Your task to perform on an android device: change the upload size in google photos Image 0: 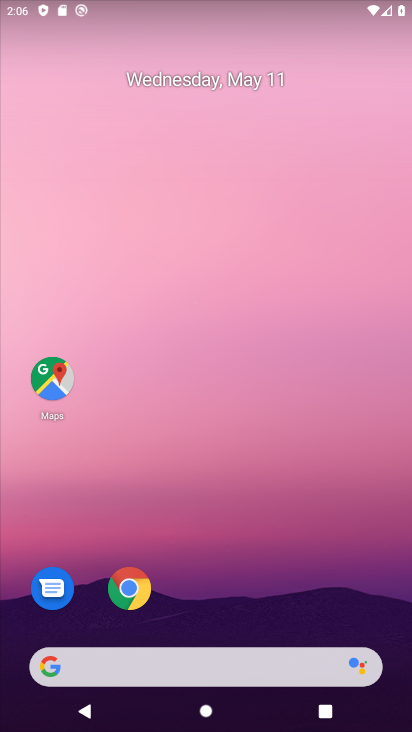
Step 0: drag from (281, 256) to (286, 62)
Your task to perform on an android device: change the upload size in google photos Image 1: 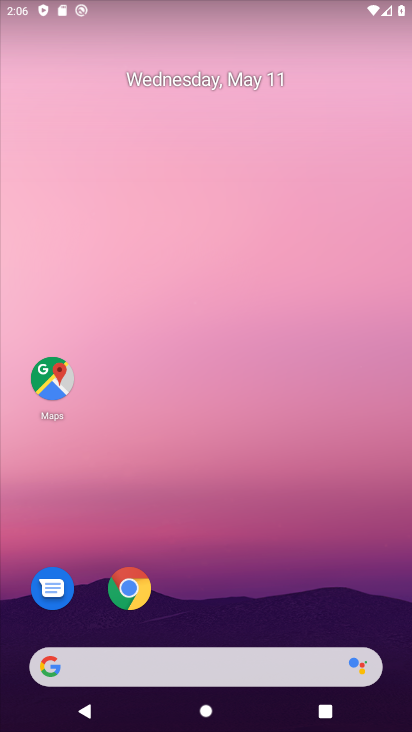
Step 1: drag from (228, 576) to (213, 8)
Your task to perform on an android device: change the upload size in google photos Image 2: 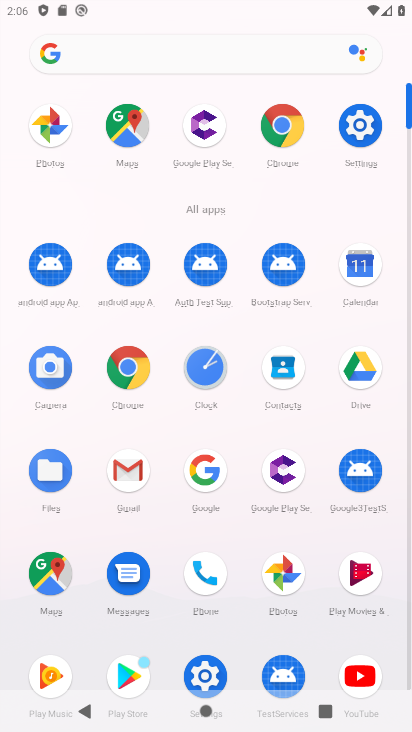
Step 2: click (291, 580)
Your task to perform on an android device: change the upload size in google photos Image 3: 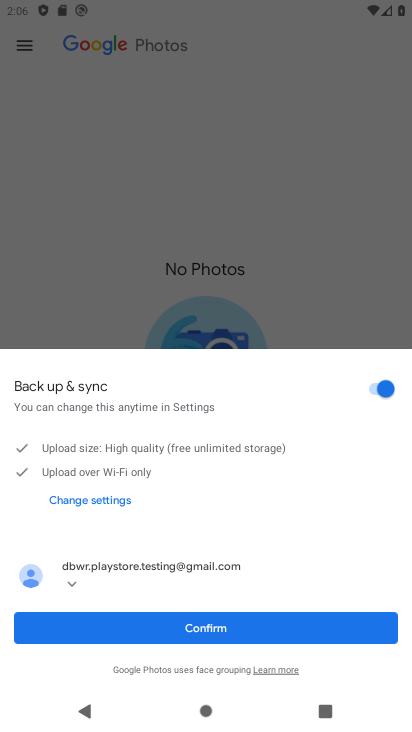
Step 3: click (119, 613)
Your task to perform on an android device: change the upload size in google photos Image 4: 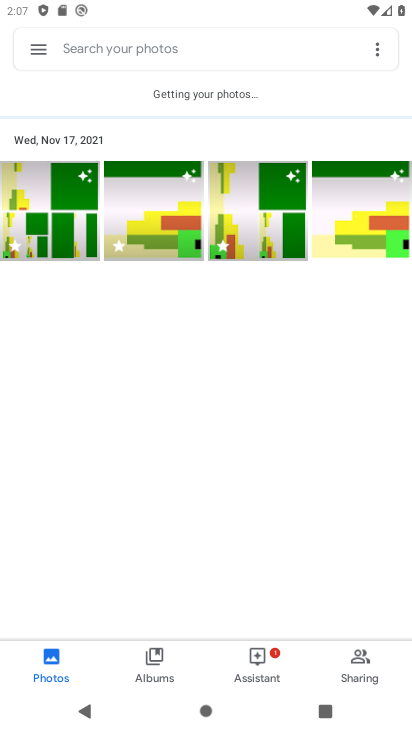
Step 4: click (382, 51)
Your task to perform on an android device: change the upload size in google photos Image 5: 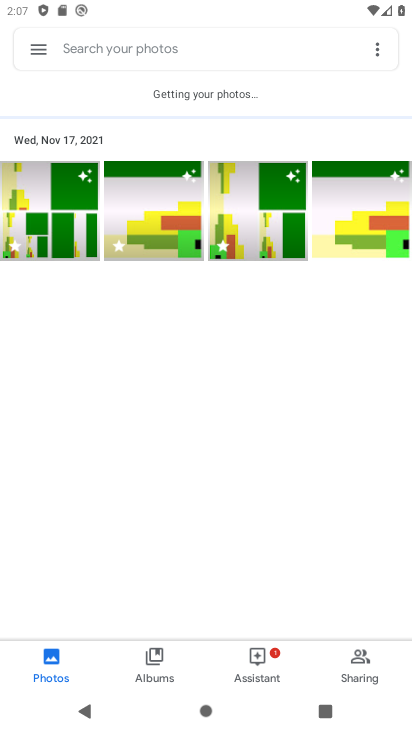
Step 5: click (40, 51)
Your task to perform on an android device: change the upload size in google photos Image 6: 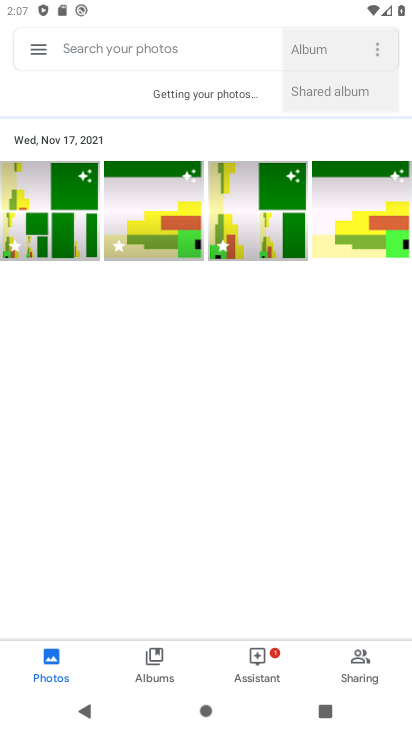
Step 6: click (46, 30)
Your task to perform on an android device: change the upload size in google photos Image 7: 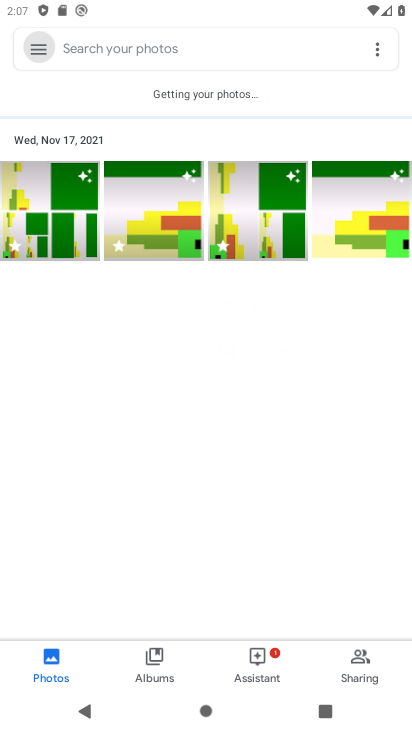
Step 7: click (51, 37)
Your task to perform on an android device: change the upload size in google photos Image 8: 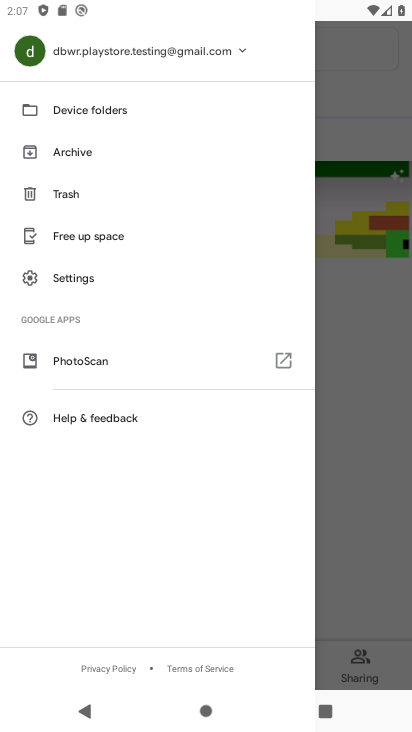
Step 8: click (73, 280)
Your task to perform on an android device: change the upload size in google photos Image 9: 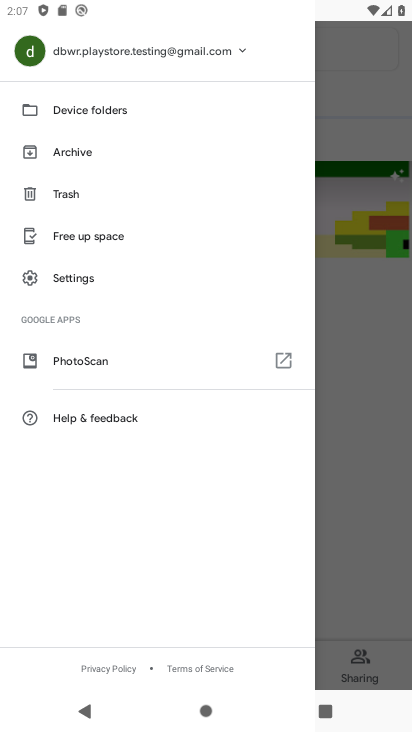
Step 9: click (85, 278)
Your task to perform on an android device: change the upload size in google photos Image 10: 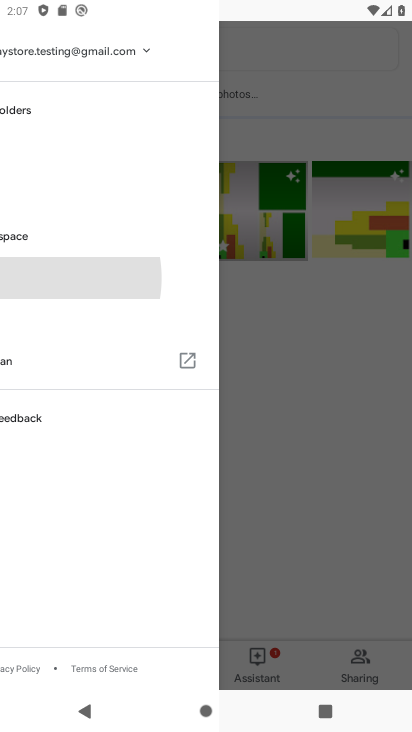
Step 10: click (85, 278)
Your task to perform on an android device: change the upload size in google photos Image 11: 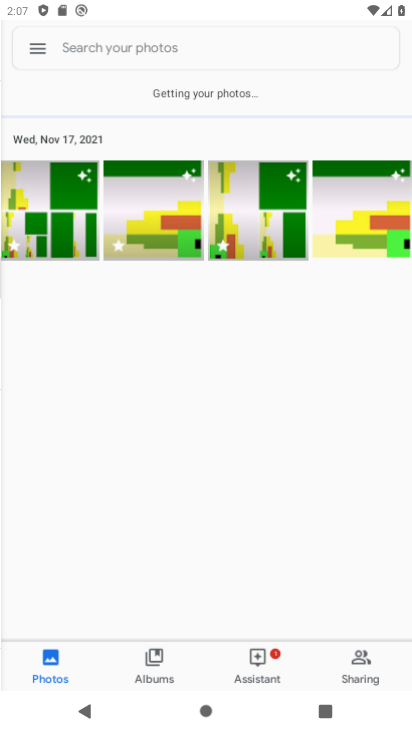
Step 11: click (85, 278)
Your task to perform on an android device: change the upload size in google photos Image 12: 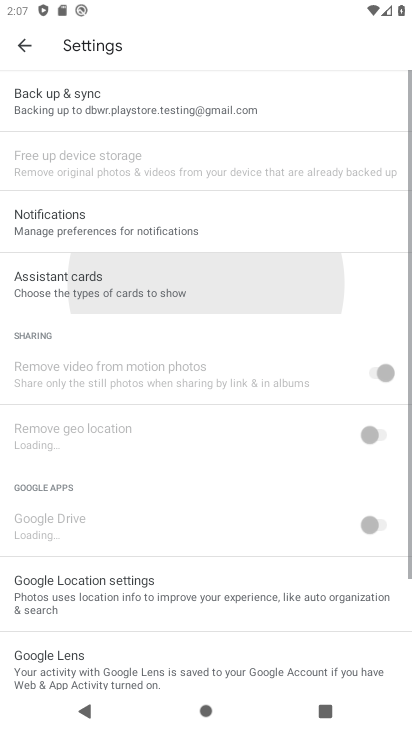
Step 12: click (85, 278)
Your task to perform on an android device: change the upload size in google photos Image 13: 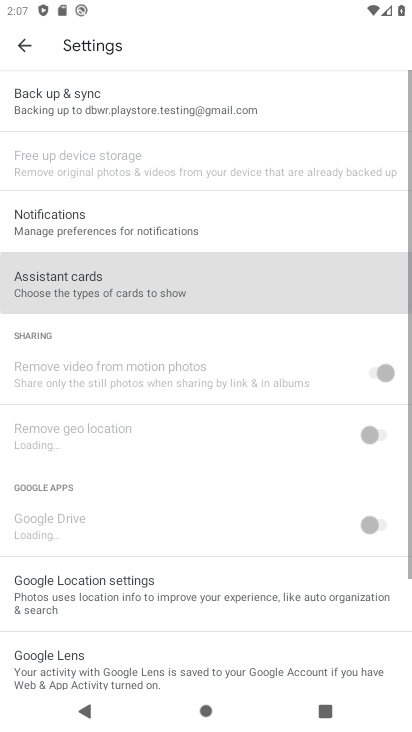
Step 13: click (85, 278)
Your task to perform on an android device: change the upload size in google photos Image 14: 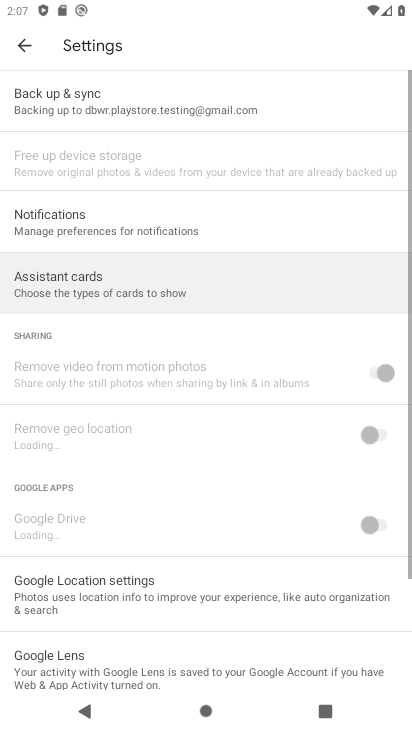
Step 14: click (85, 278)
Your task to perform on an android device: change the upload size in google photos Image 15: 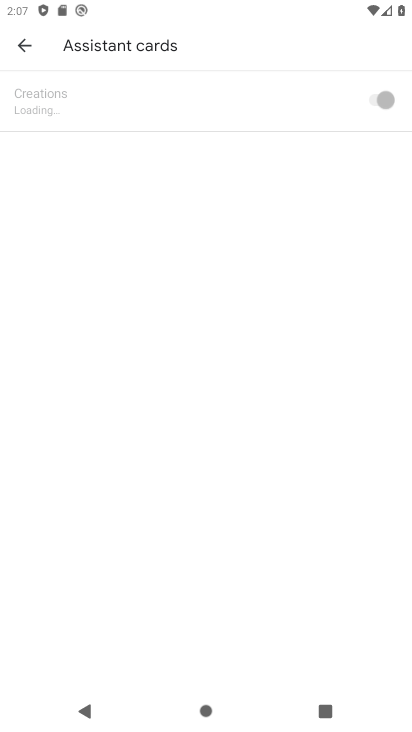
Step 15: click (85, 278)
Your task to perform on an android device: change the upload size in google photos Image 16: 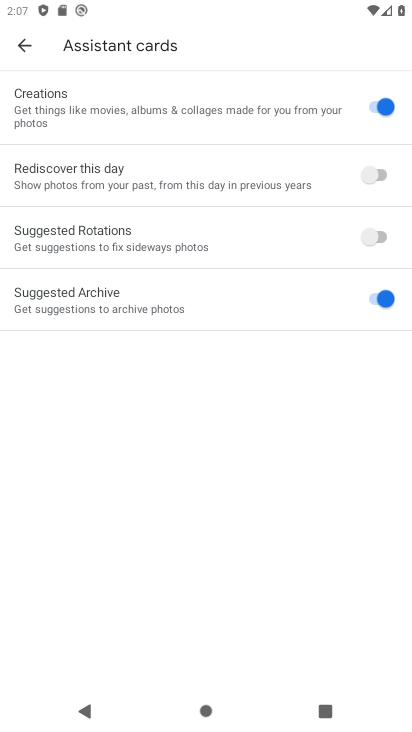
Step 16: click (26, 49)
Your task to perform on an android device: change the upload size in google photos Image 17: 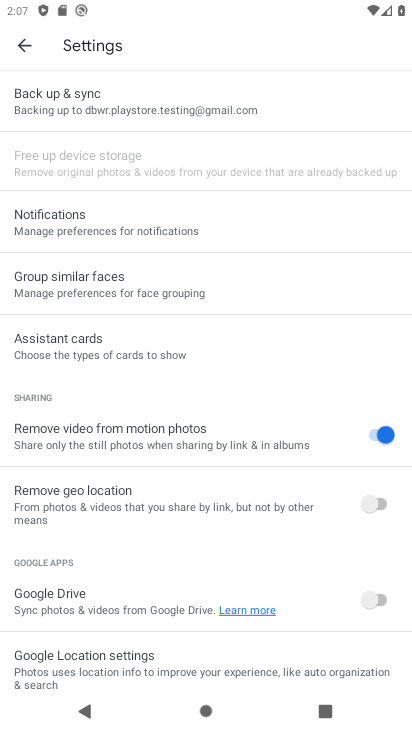
Step 17: click (26, 49)
Your task to perform on an android device: change the upload size in google photos Image 18: 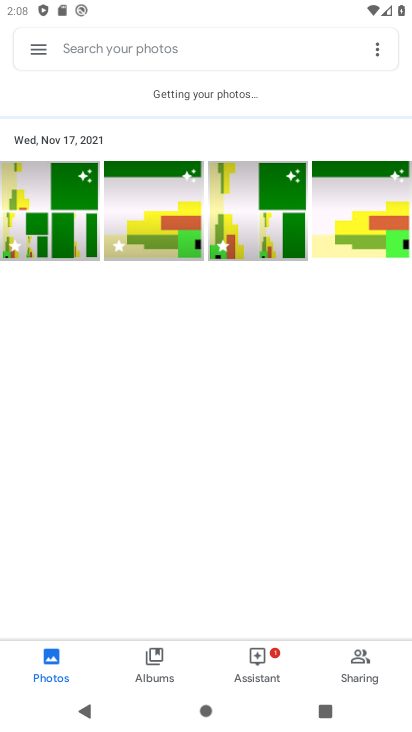
Step 18: click (30, 48)
Your task to perform on an android device: change the upload size in google photos Image 19: 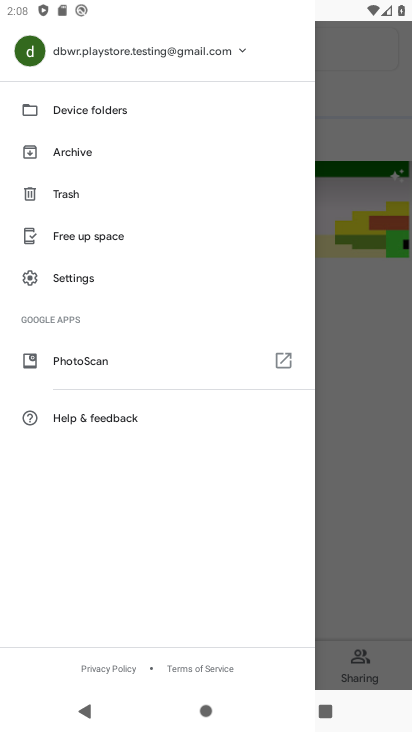
Step 19: click (47, 275)
Your task to perform on an android device: change the upload size in google photos Image 20: 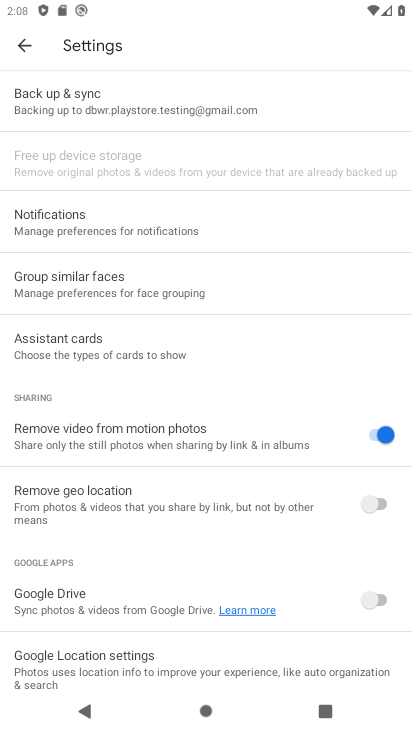
Step 20: click (90, 104)
Your task to perform on an android device: change the upload size in google photos Image 21: 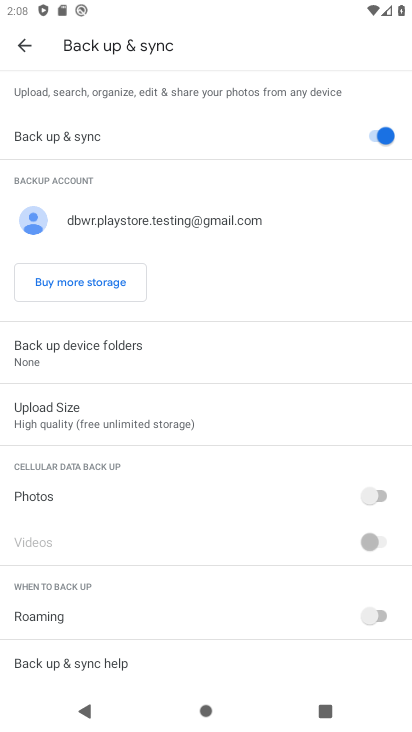
Step 21: click (68, 424)
Your task to perform on an android device: change the upload size in google photos Image 22: 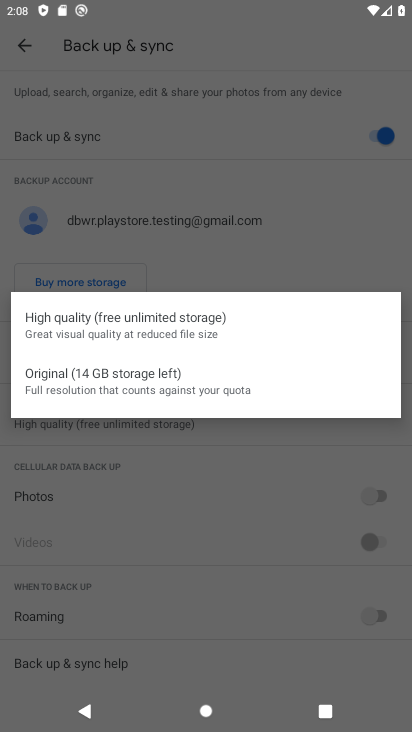
Step 22: click (72, 399)
Your task to perform on an android device: change the upload size in google photos Image 23: 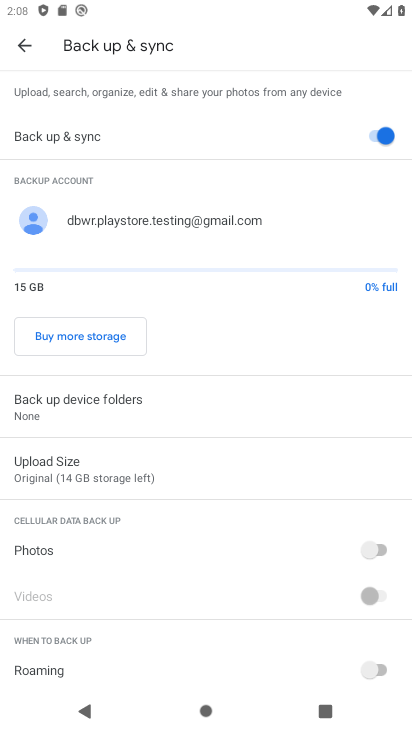
Step 23: task complete